Your task to perform on an android device: find photos in the google photos app Image 0: 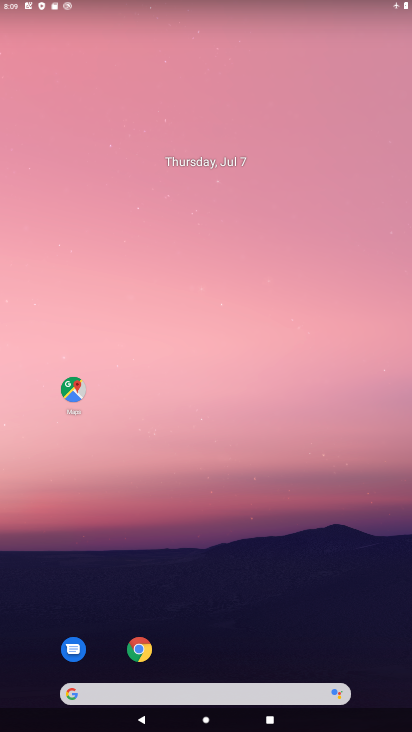
Step 0: drag from (332, 693) to (250, 19)
Your task to perform on an android device: find photos in the google photos app Image 1: 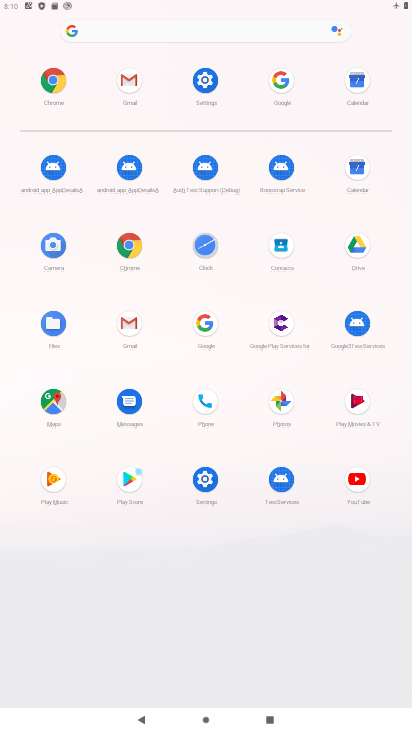
Step 1: click (285, 403)
Your task to perform on an android device: find photos in the google photos app Image 2: 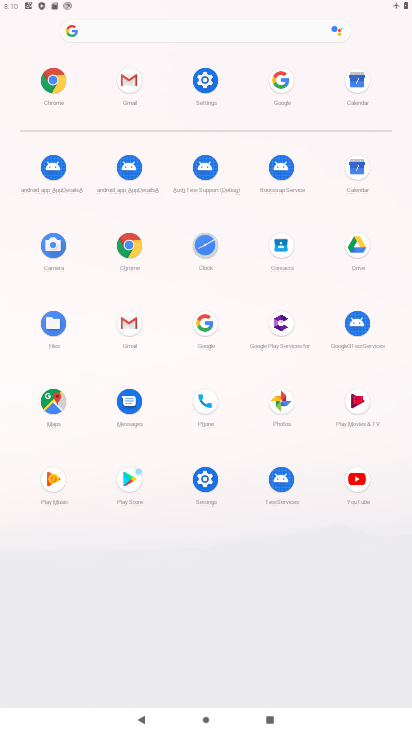
Step 2: click (285, 403)
Your task to perform on an android device: find photos in the google photos app Image 3: 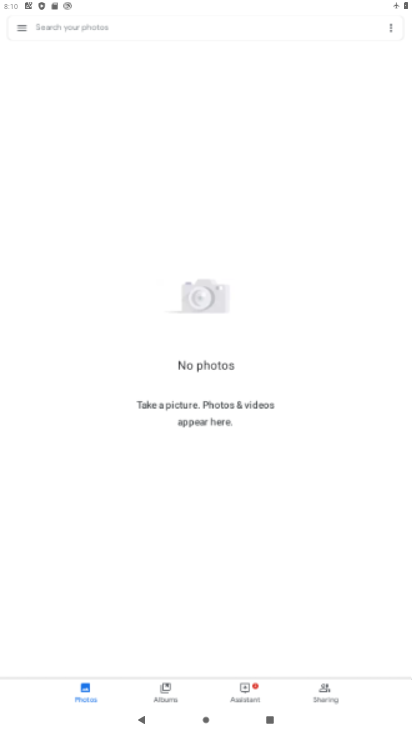
Step 3: click (282, 403)
Your task to perform on an android device: find photos in the google photos app Image 4: 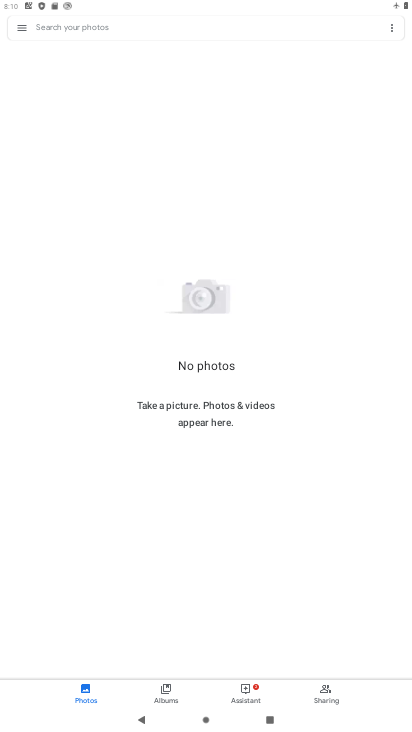
Step 4: click (282, 405)
Your task to perform on an android device: find photos in the google photos app Image 5: 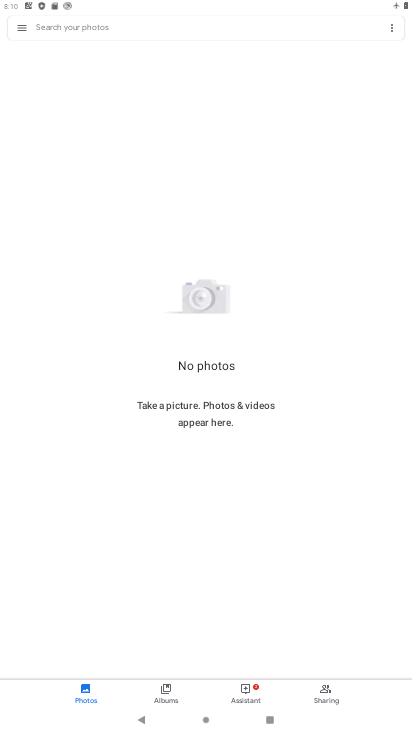
Step 5: task complete